Your task to perform on an android device: Go to Google Image 0: 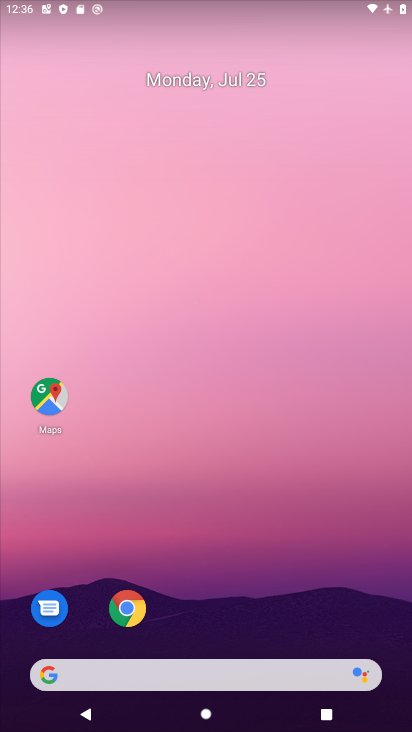
Step 0: drag from (193, 530) to (299, 96)
Your task to perform on an android device: Go to Google Image 1: 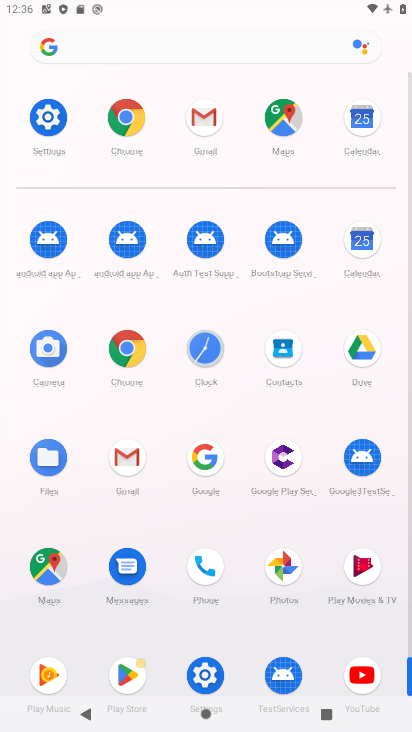
Step 1: click (213, 468)
Your task to perform on an android device: Go to Google Image 2: 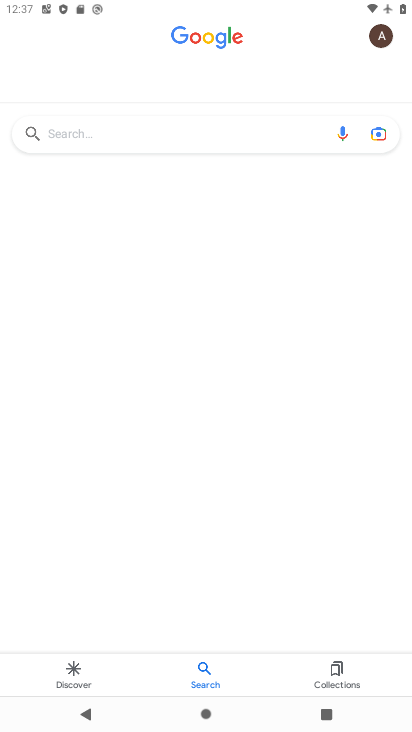
Step 2: task complete